Your task to perform on an android device: Go to Google Image 0: 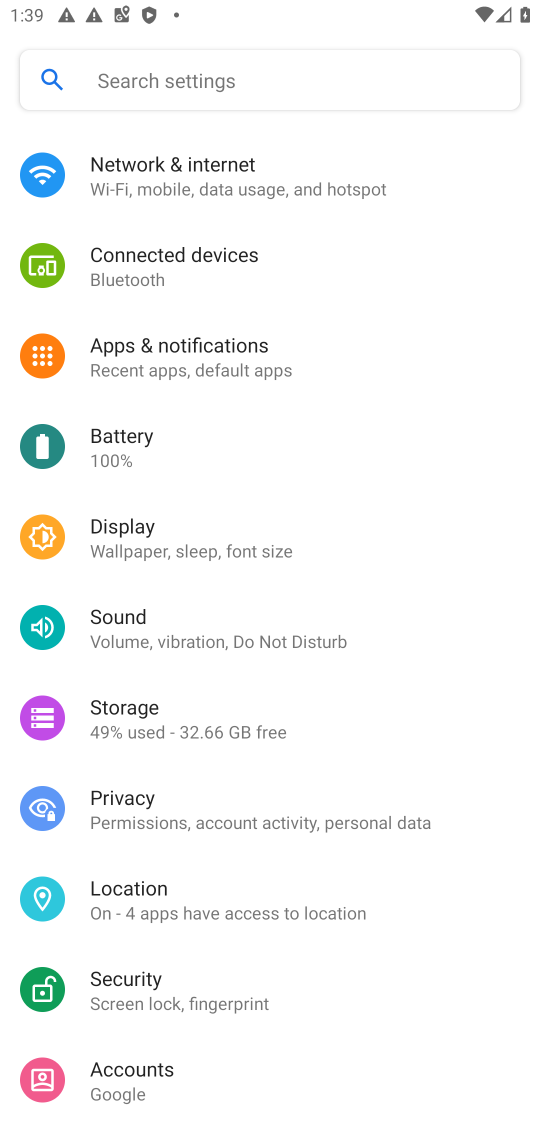
Step 0: press home button
Your task to perform on an android device: Go to Google Image 1: 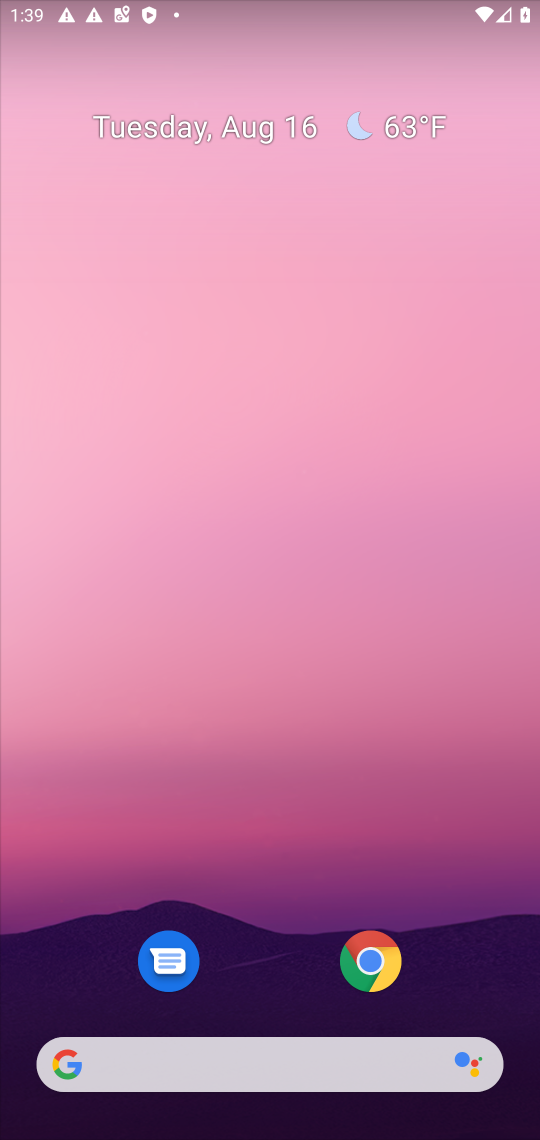
Step 1: drag from (472, 959) to (347, 27)
Your task to perform on an android device: Go to Google Image 2: 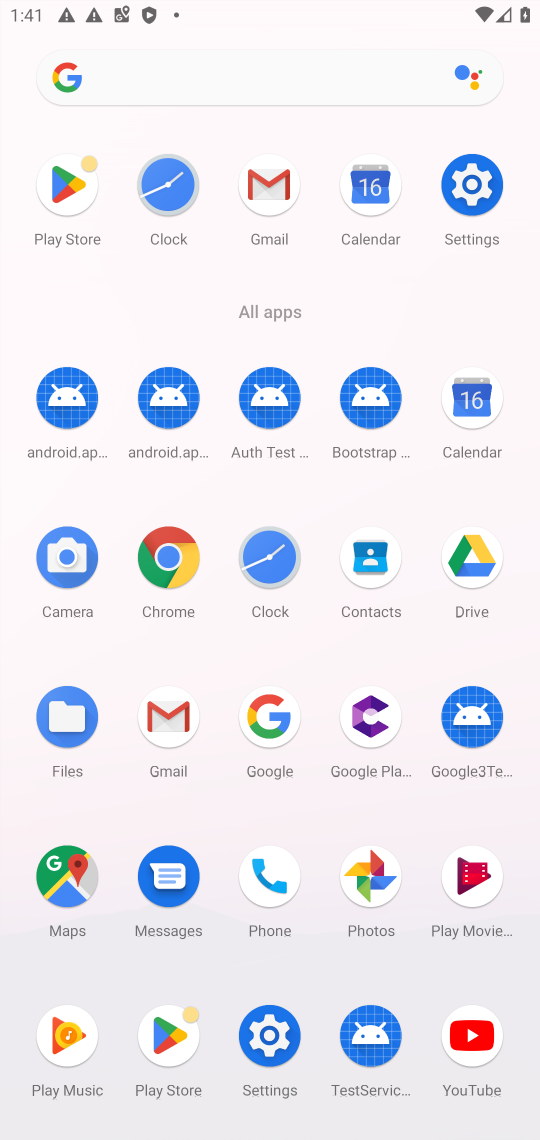
Step 2: click (290, 716)
Your task to perform on an android device: Go to Google Image 3: 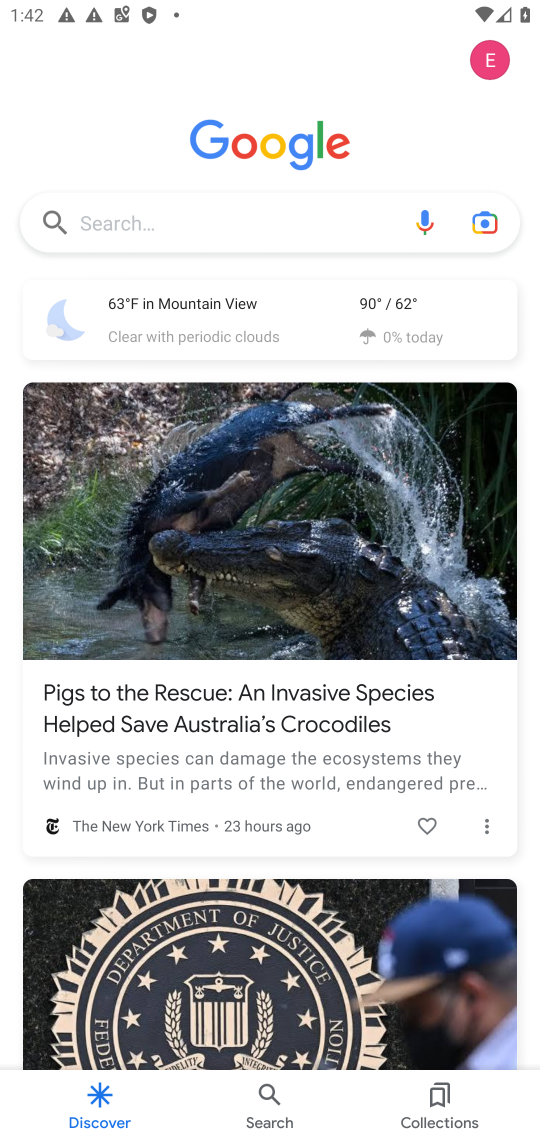
Step 3: task complete